Your task to perform on an android device: Open CNN.com Image 0: 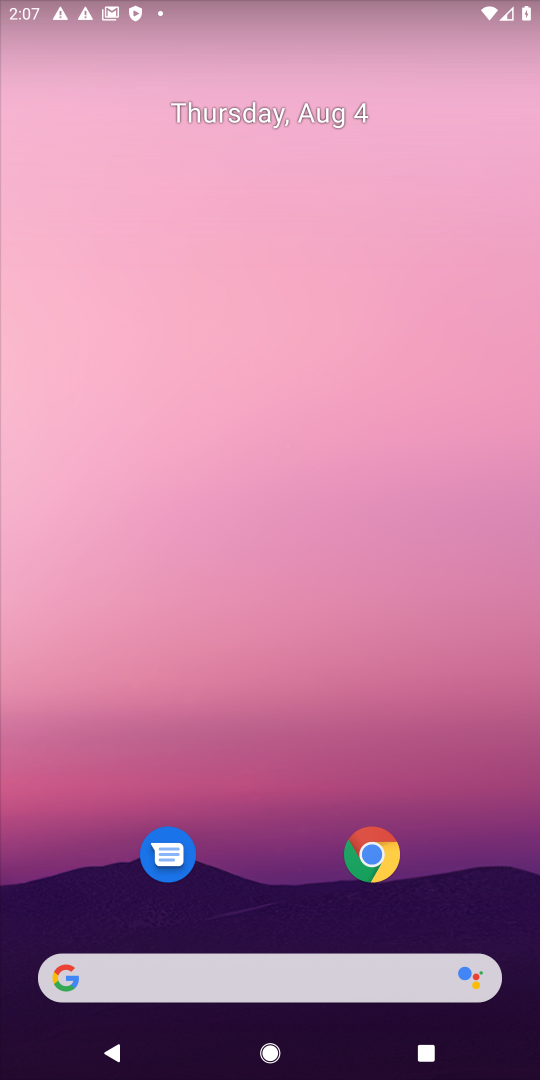
Step 0: drag from (224, 967) to (182, 157)
Your task to perform on an android device: Open CNN.com Image 1: 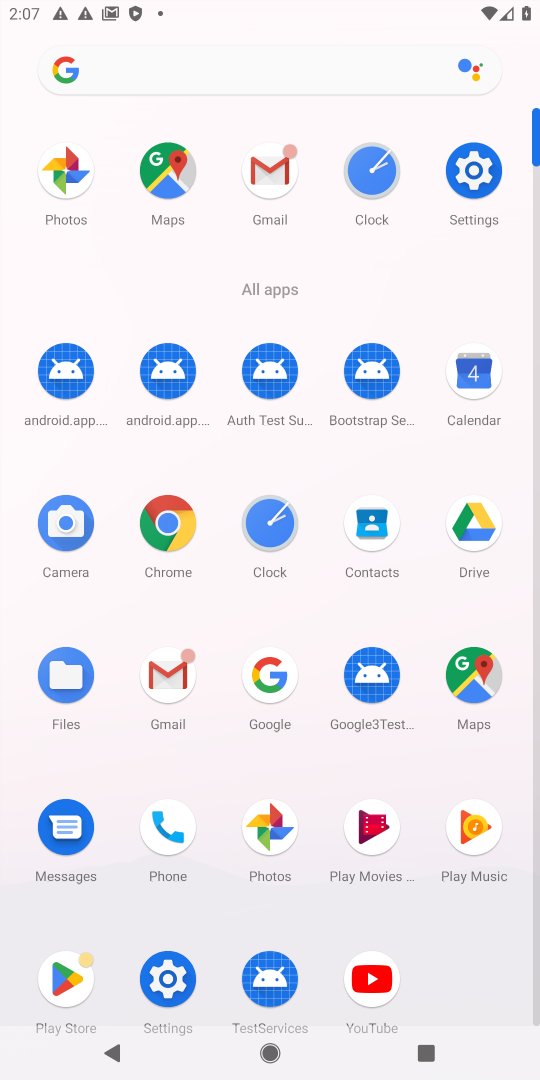
Step 1: click (287, 671)
Your task to perform on an android device: Open CNN.com Image 2: 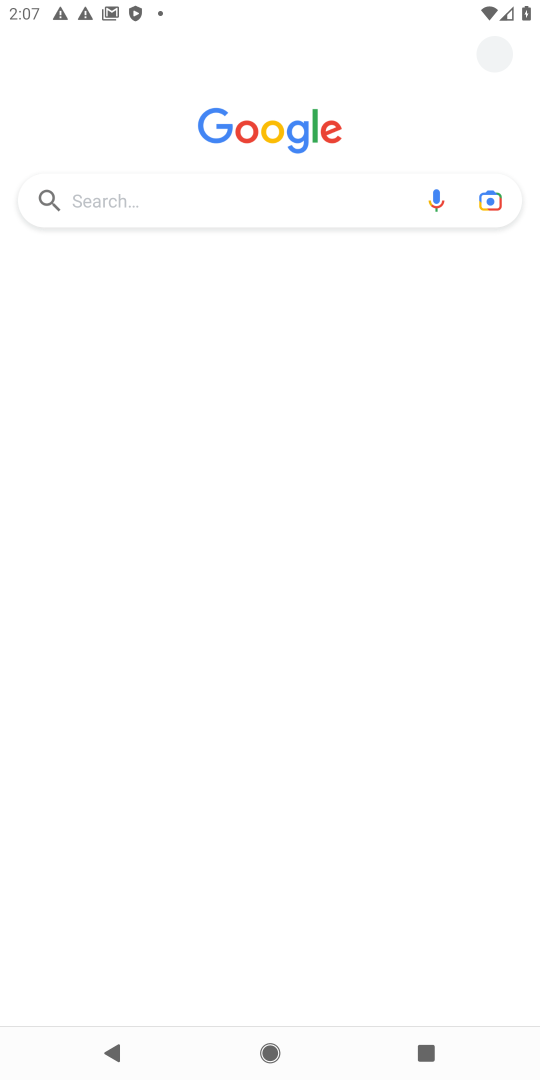
Step 2: click (209, 201)
Your task to perform on an android device: Open CNN.com Image 3: 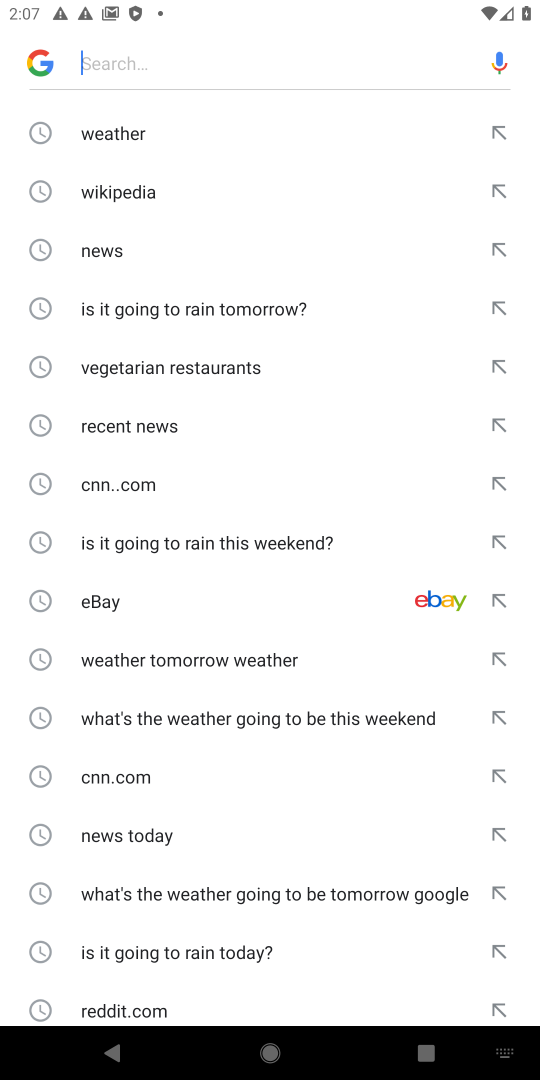
Step 3: click (124, 479)
Your task to perform on an android device: Open CNN.com Image 4: 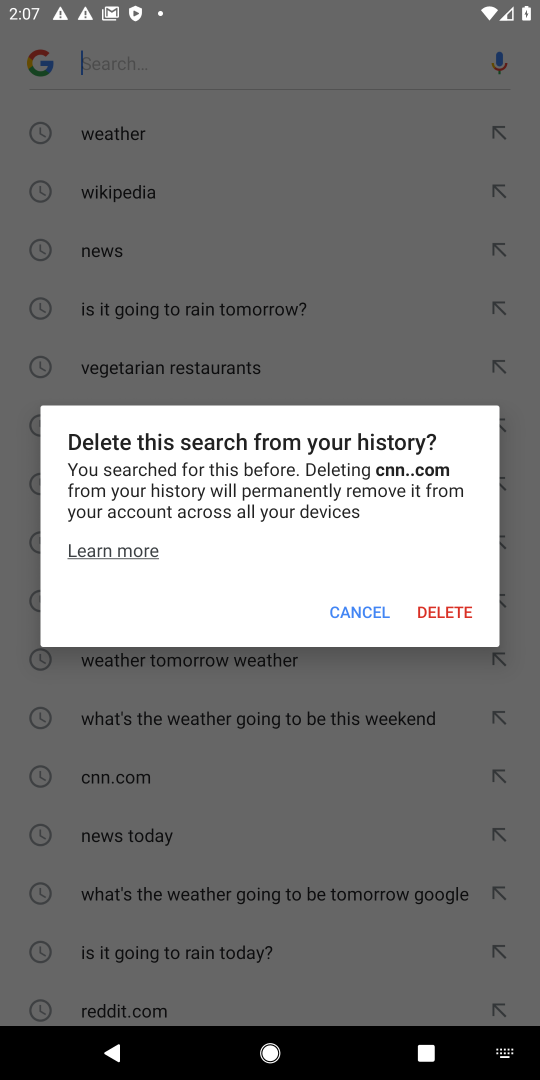
Step 4: click (350, 624)
Your task to perform on an android device: Open CNN.com Image 5: 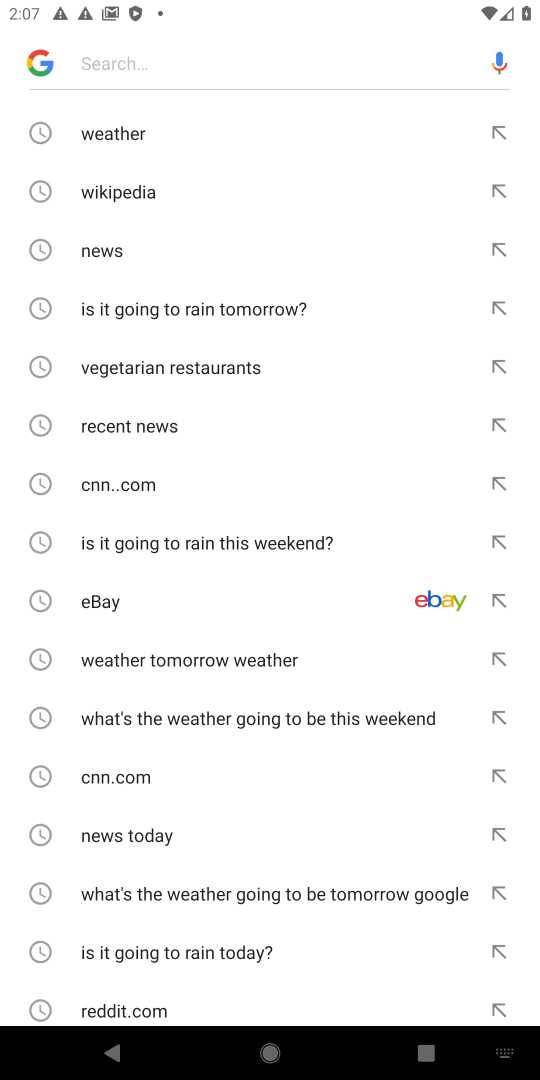
Step 5: click (138, 480)
Your task to perform on an android device: Open CNN.com Image 6: 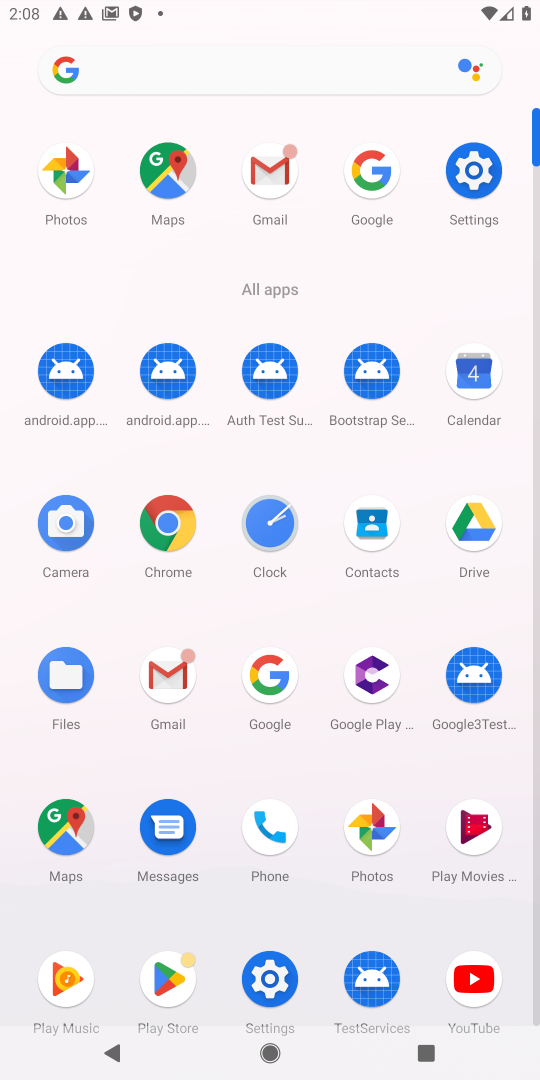
Step 6: click (250, 667)
Your task to perform on an android device: Open CNN.com Image 7: 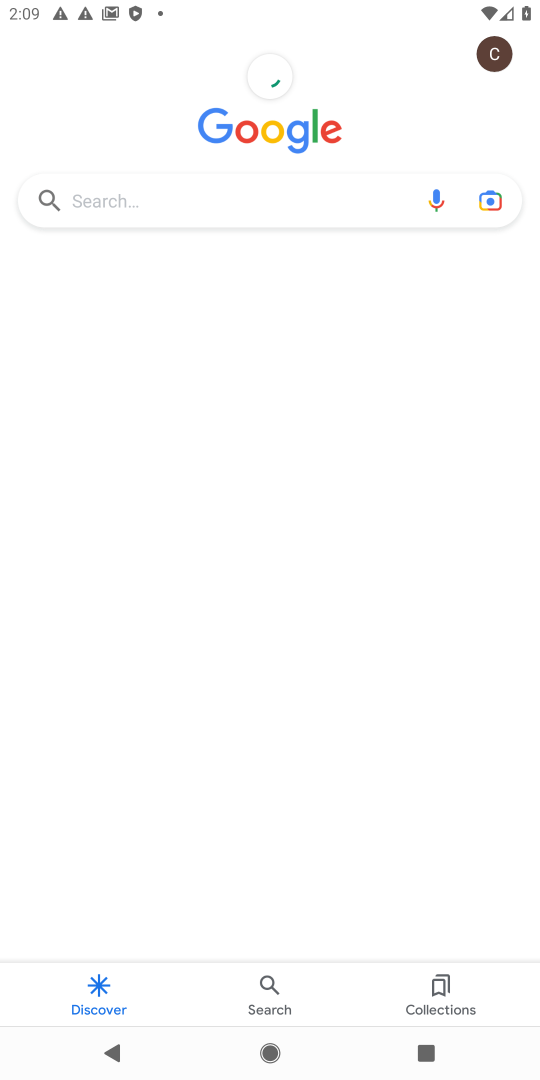
Step 7: click (216, 184)
Your task to perform on an android device: Open CNN.com Image 8: 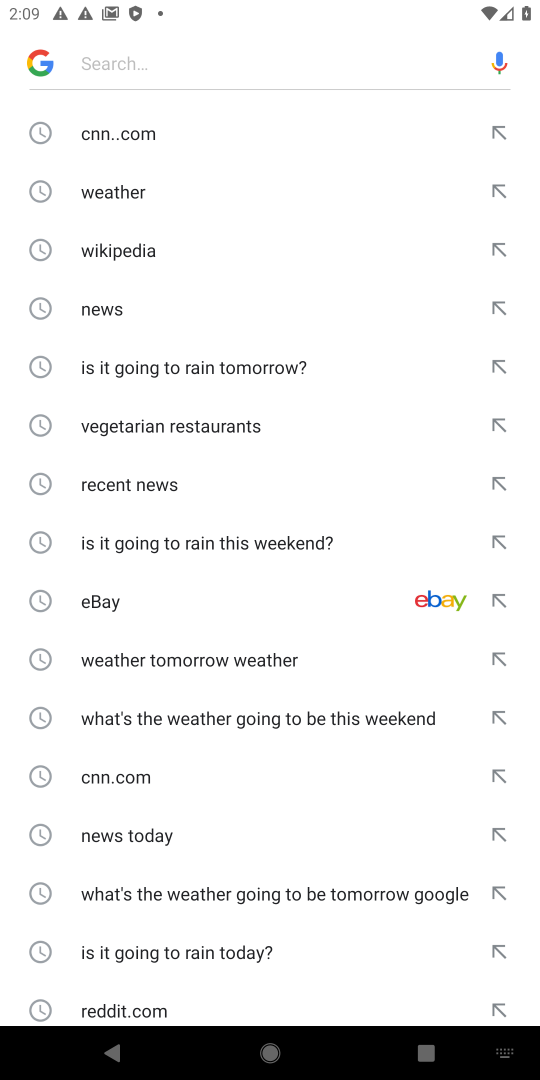
Step 8: click (91, 138)
Your task to perform on an android device: Open CNN.com Image 9: 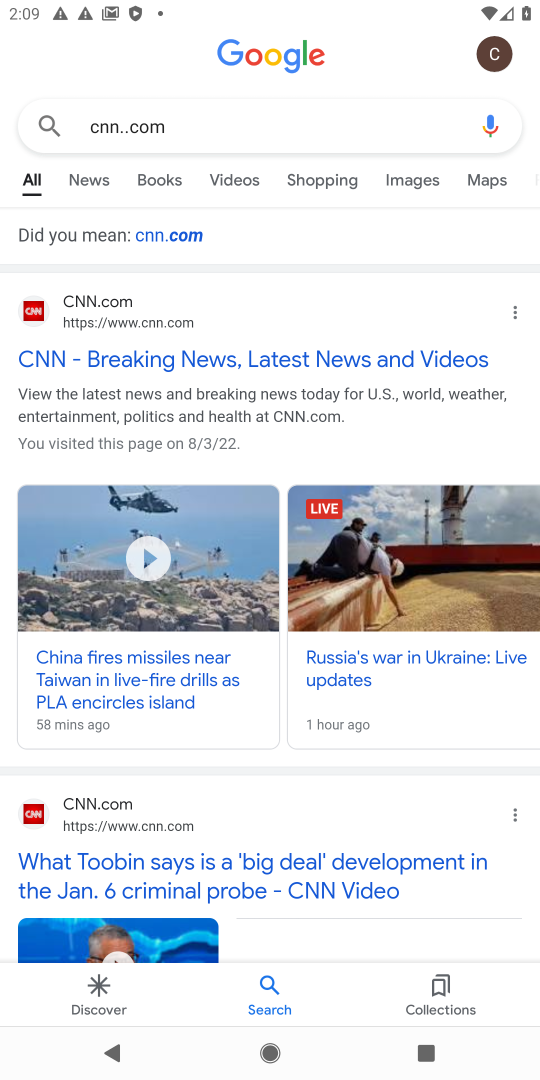
Step 9: click (143, 370)
Your task to perform on an android device: Open CNN.com Image 10: 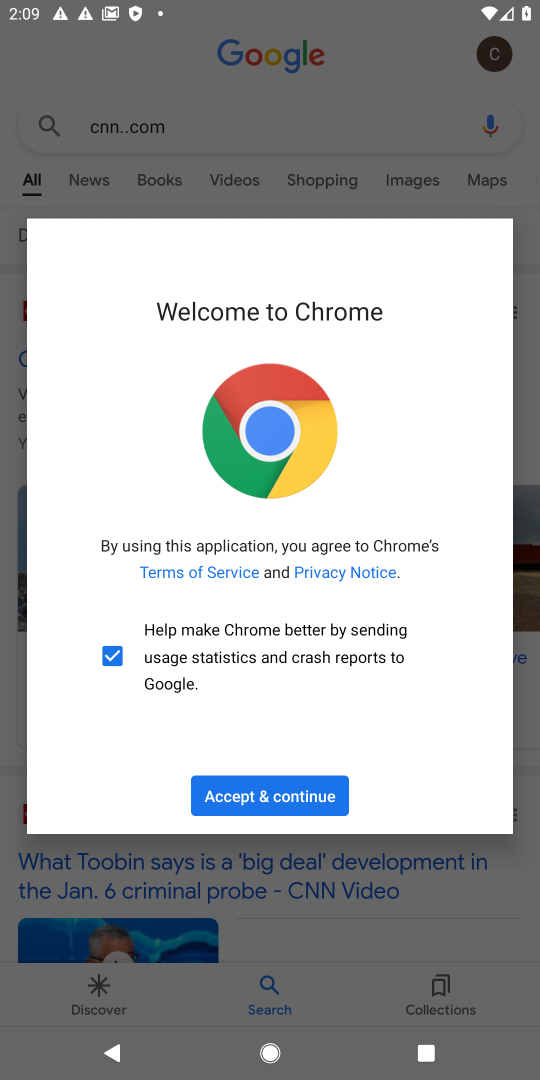
Step 10: click (284, 797)
Your task to perform on an android device: Open CNN.com Image 11: 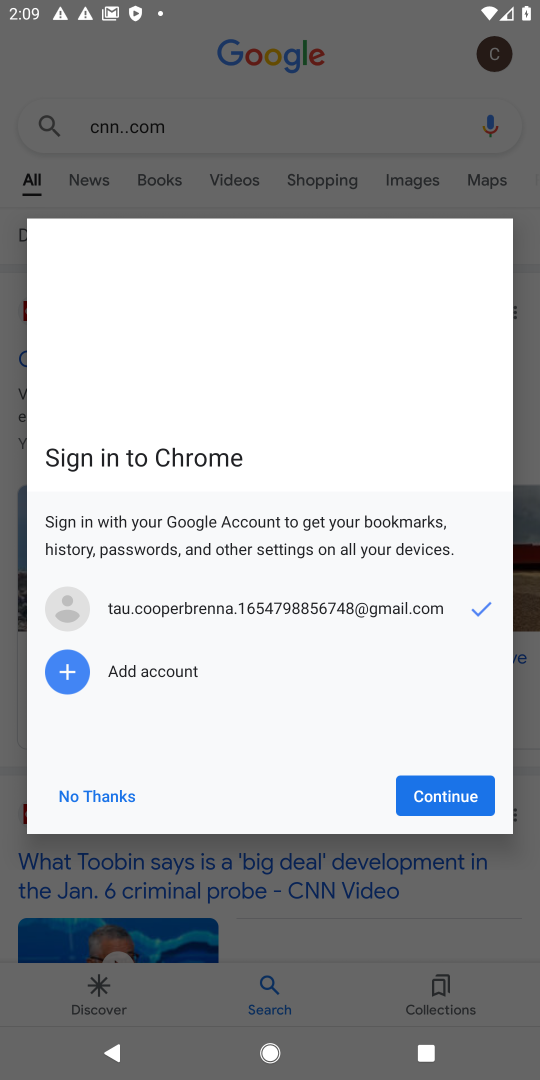
Step 11: click (435, 798)
Your task to perform on an android device: Open CNN.com Image 12: 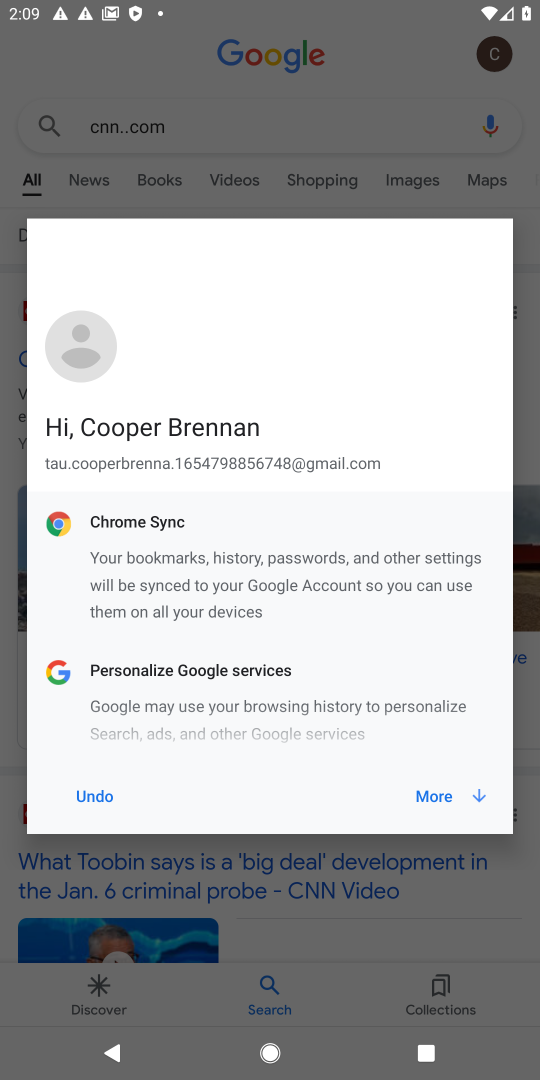
Step 12: click (435, 798)
Your task to perform on an android device: Open CNN.com Image 13: 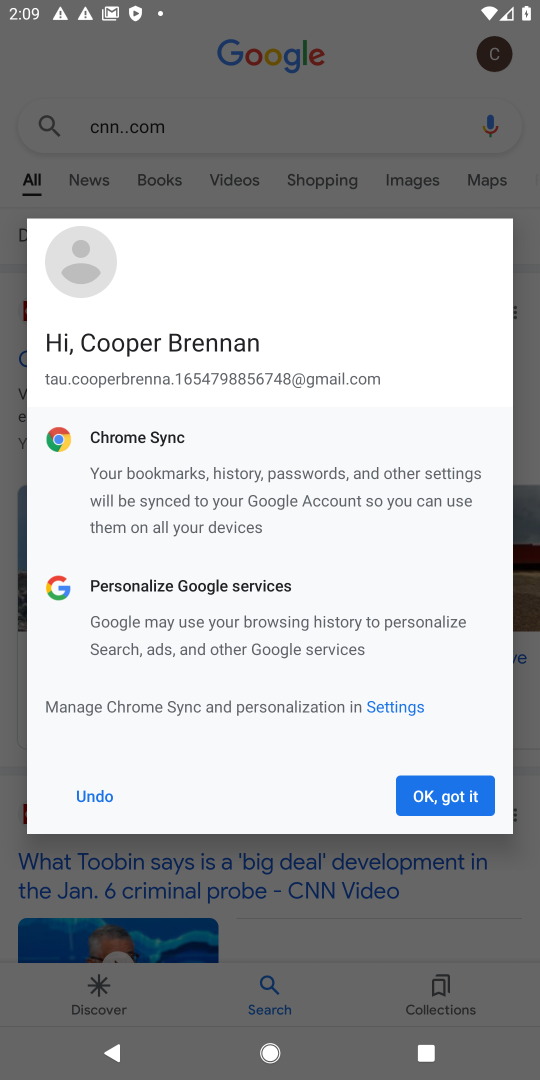
Step 13: click (435, 806)
Your task to perform on an android device: Open CNN.com Image 14: 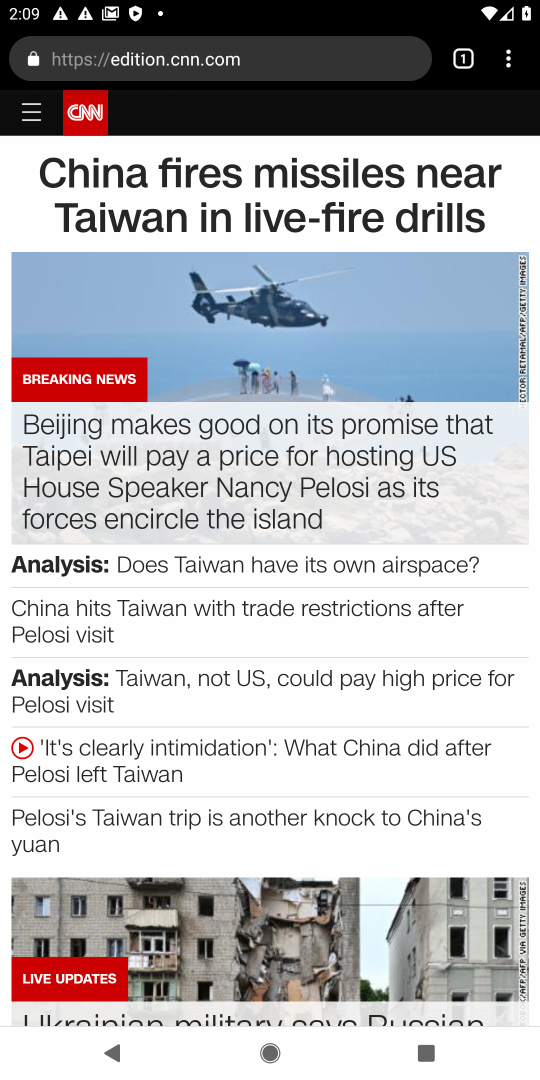
Step 14: task complete